Your task to perform on an android device: What's a good restaurant in Dallas? Image 0: 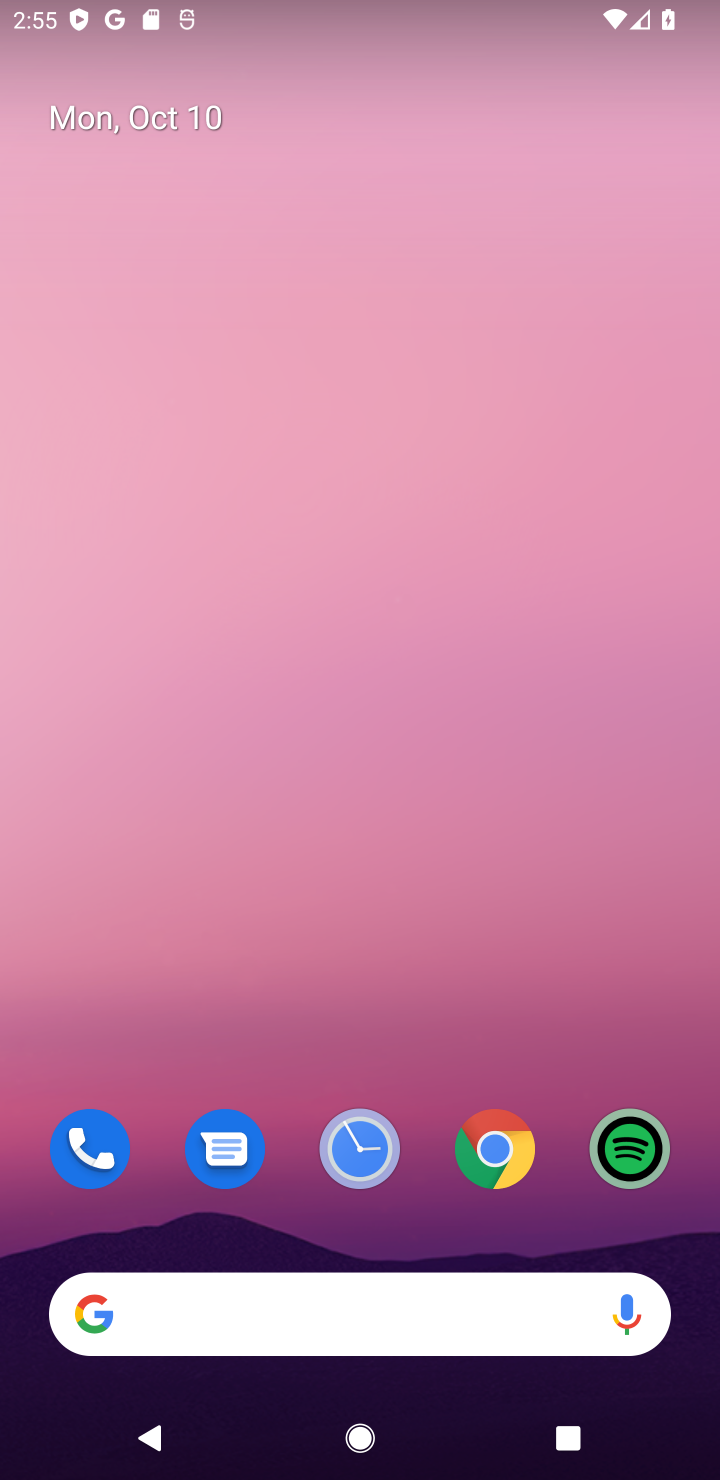
Step 0: click (273, 1255)
Your task to perform on an android device: What's a good restaurant in Dallas? Image 1: 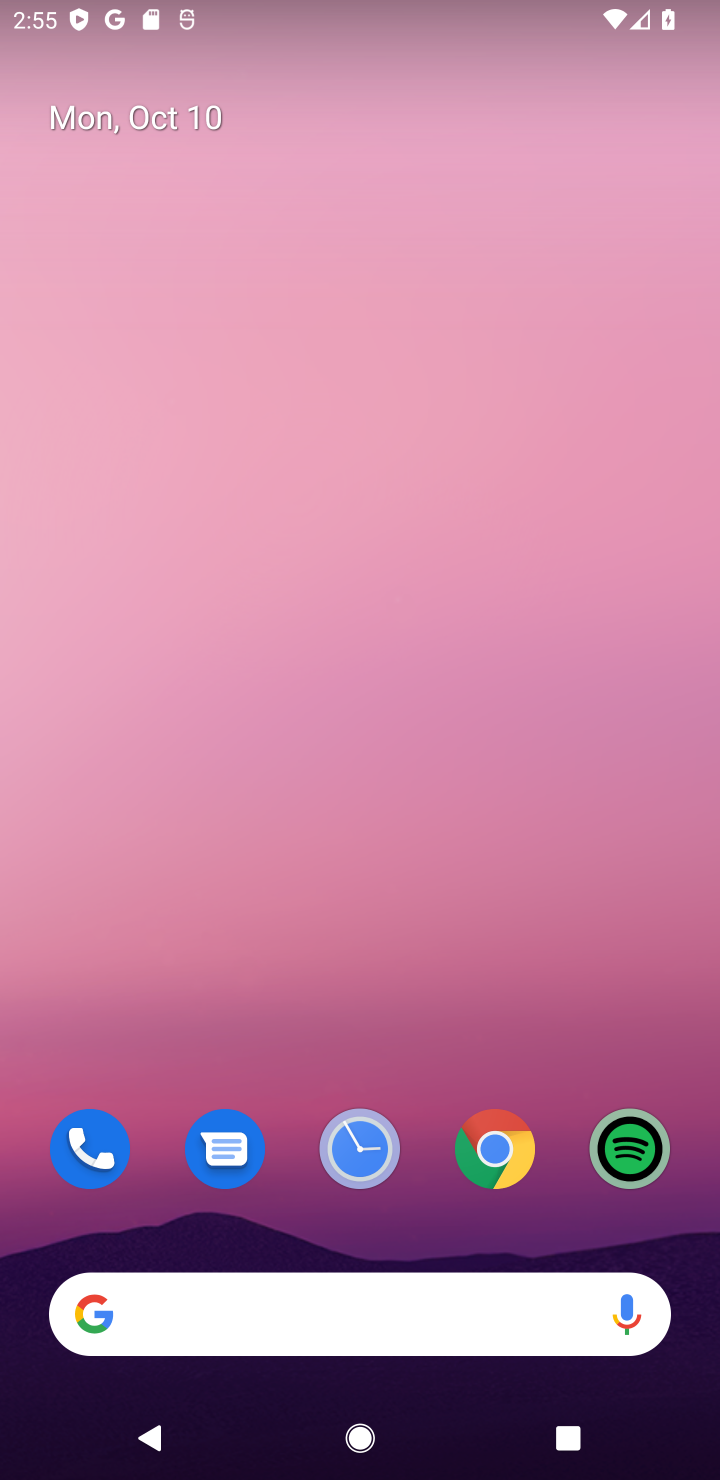
Step 1: click (247, 1300)
Your task to perform on an android device: What's a good restaurant in Dallas? Image 2: 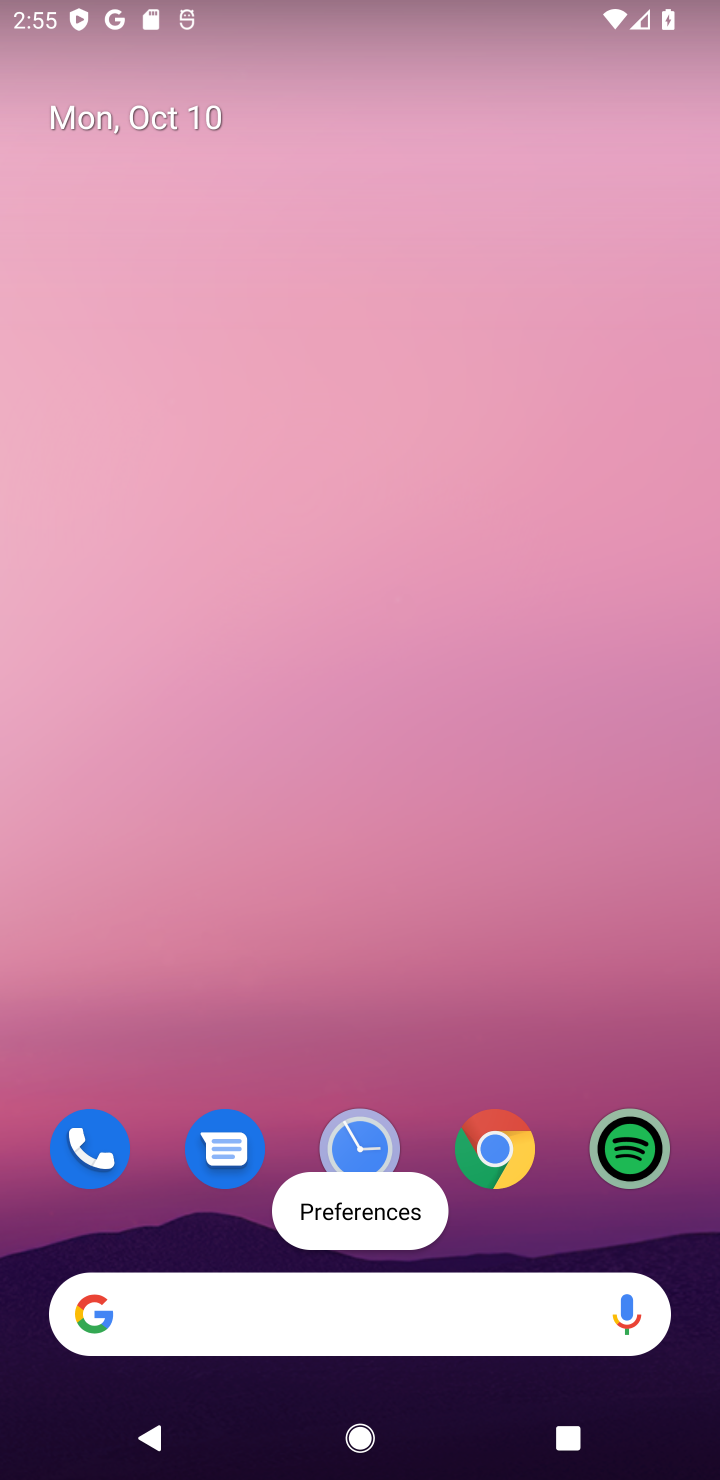
Step 2: type "good restaurant in Dallas"
Your task to perform on an android device: What's a good restaurant in Dallas? Image 3: 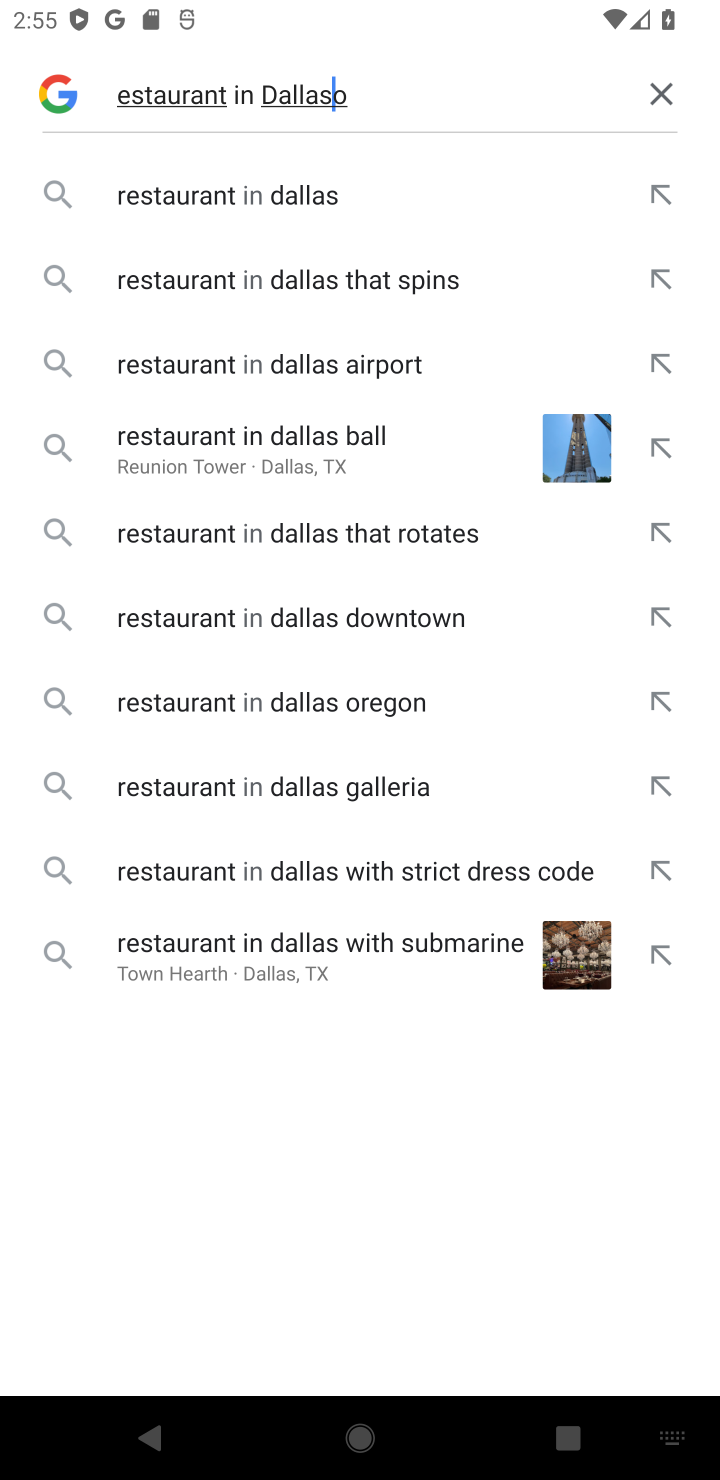
Step 3: click (241, 198)
Your task to perform on an android device: What's a good restaurant in Dallas? Image 4: 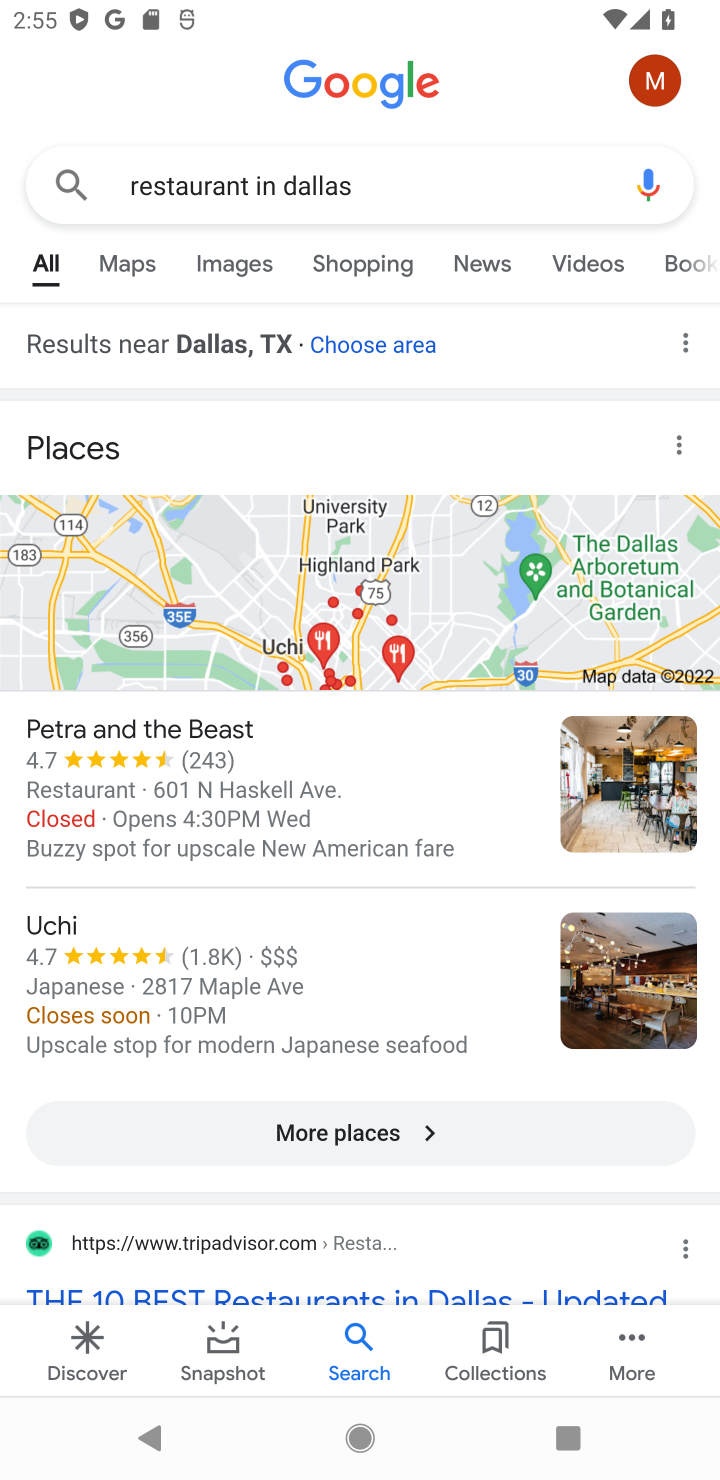
Step 4: task complete